Your task to perform on an android device: Go to Android settings Image 0: 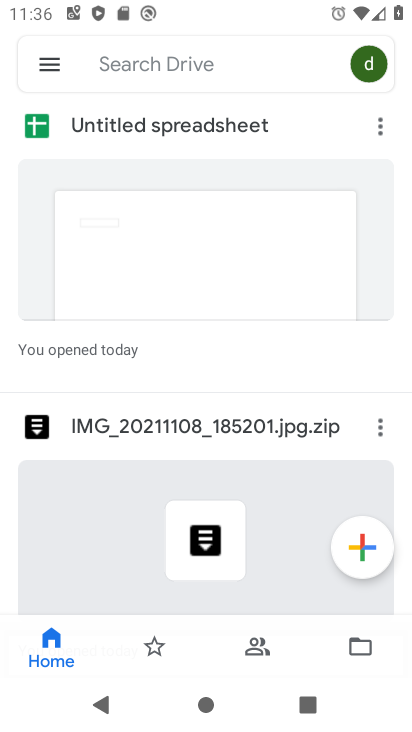
Step 0: press home button
Your task to perform on an android device: Go to Android settings Image 1: 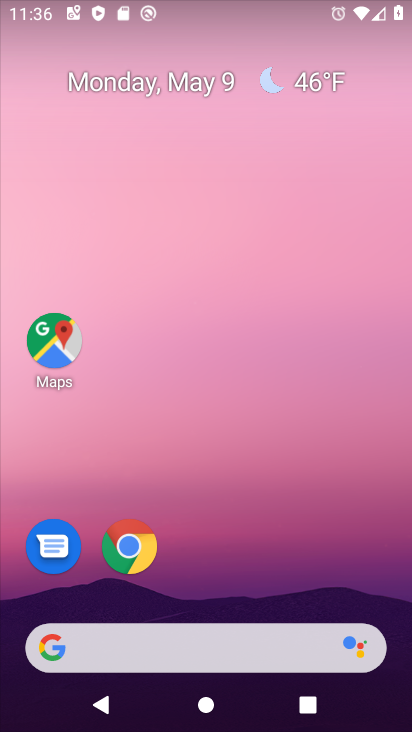
Step 1: drag from (326, 585) to (306, 0)
Your task to perform on an android device: Go to Android settings Image 2: 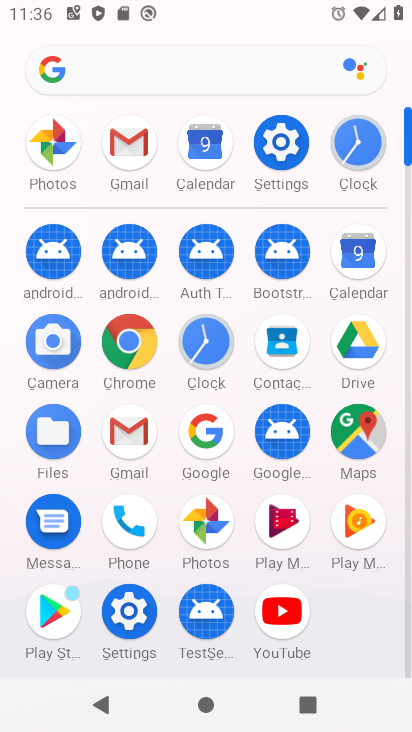
Step 2: click (278, 142)
Your task to perform on an android device: Go to Android settings Image 3: 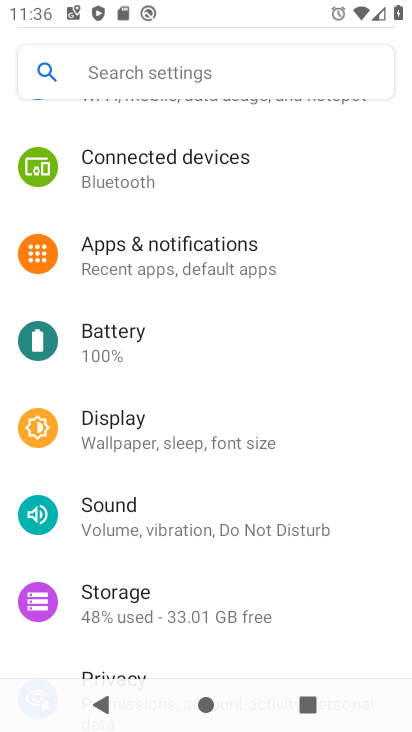
Step 3: task complete